Your task to perform on an android device: turn pop-ups off in chrome Image 0: 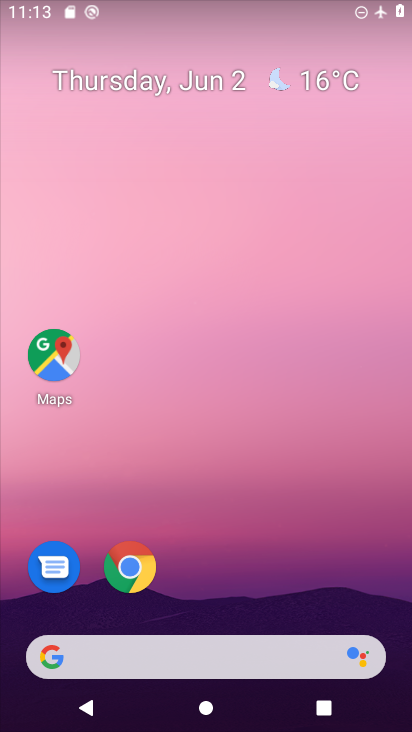
Step 0: click (133, 570)
Your task to perform on an android device: turn pop-ups off in chrome Image 1: 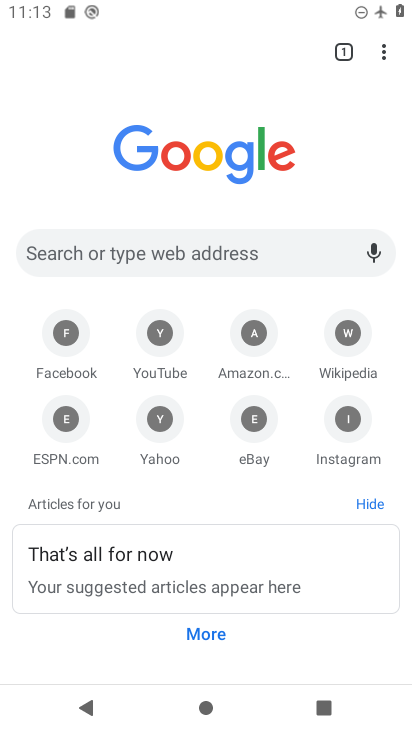
Step 1: drag from (386, 56) to (231, 435)
Your task to perform on an android device: turn pop-ups off in chrome Image 2: 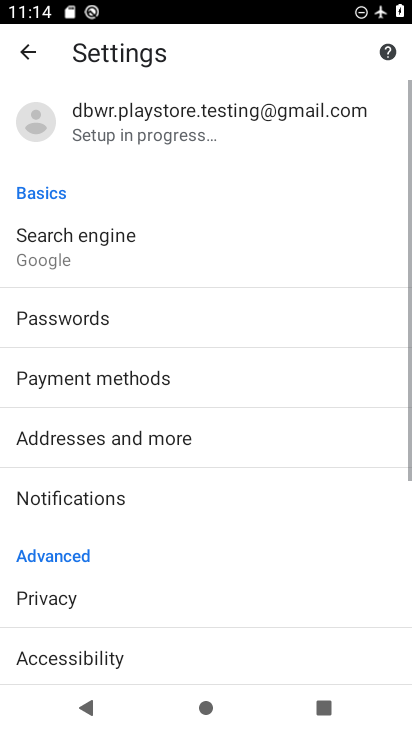
Step 2: drag from (176, 583) to (209, 101)
Your task to perform on an android device: turn pop-ups off in chrome Image 3: 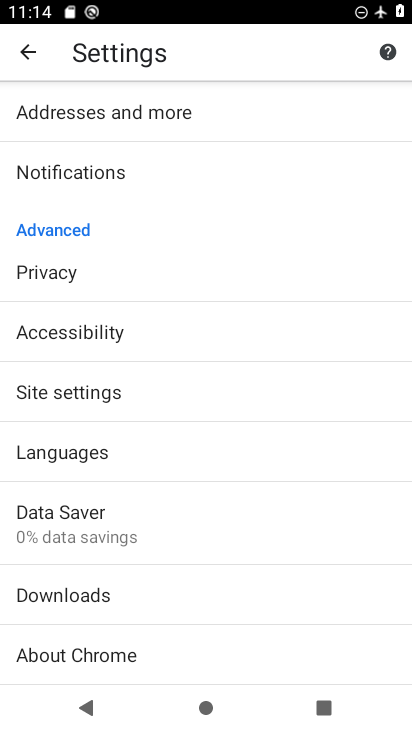
Step 3: click (133, 399)
Your task to perform on an android device: turn pop-ups off in chrome Image 4: 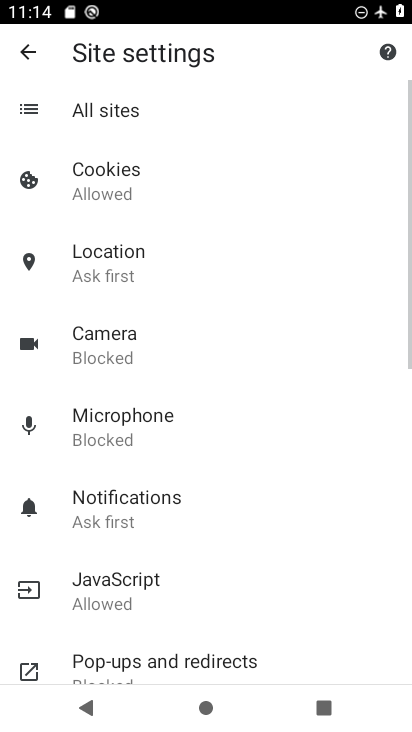
Step 4: drag from (202, 587) to (229, 200)
Your task to perform on an android device: turn pop-ups off in chrome Image 5: 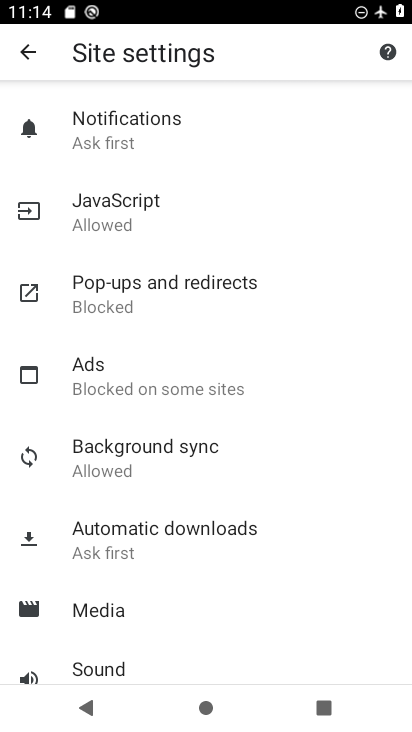
Step 5: click (175, 295)
Your task to perform on an android device: turn pop-ups off in chrome Image 6: 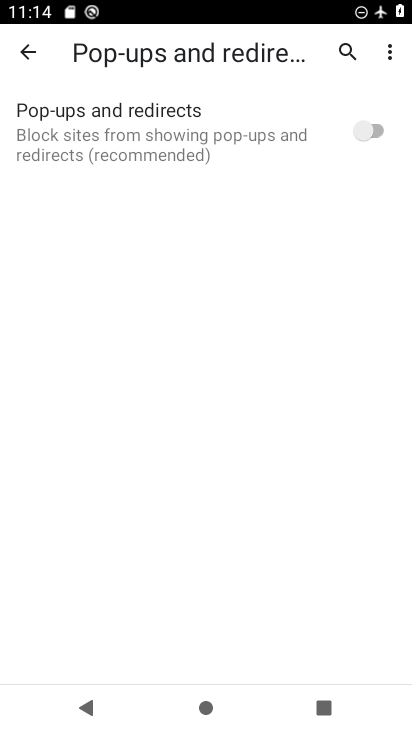
Step 6: task complete